Your task to perform on an android device: choose inbox layout in the gmail app Image 0: 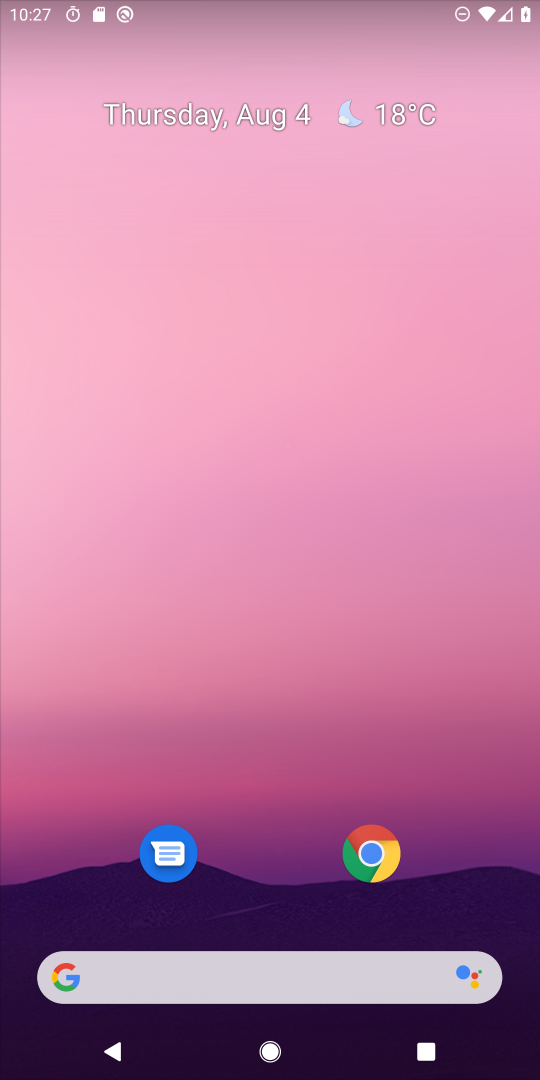
Step 0: drag from (254, 905) to (315, 0)
Your task to perform on an android device: choose inbox layout in the gmail app Image 1: 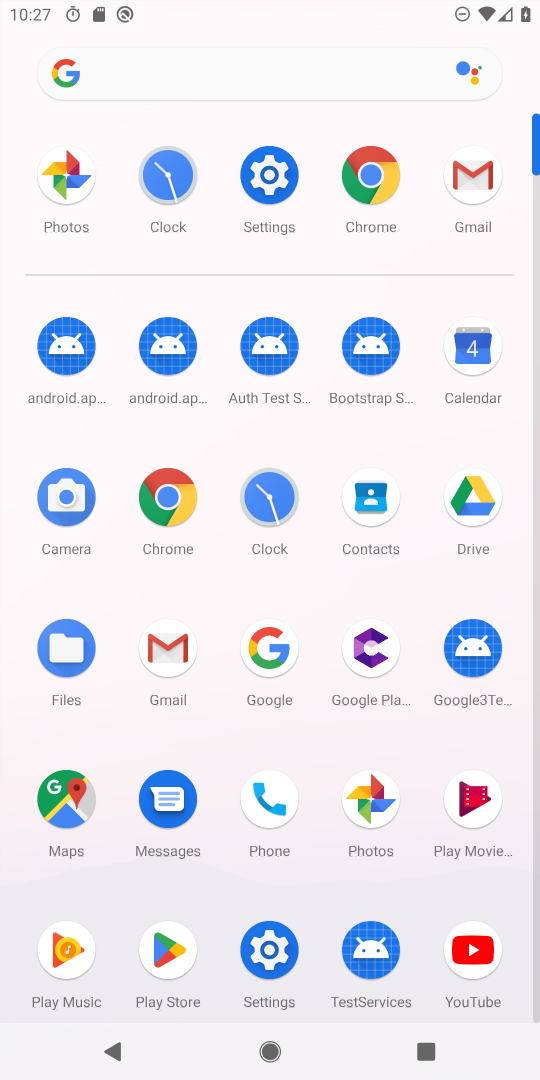
Step 1: click (173, 662)
Your task to perform on an android device: choose inbox layout in the gmail app Image 2: 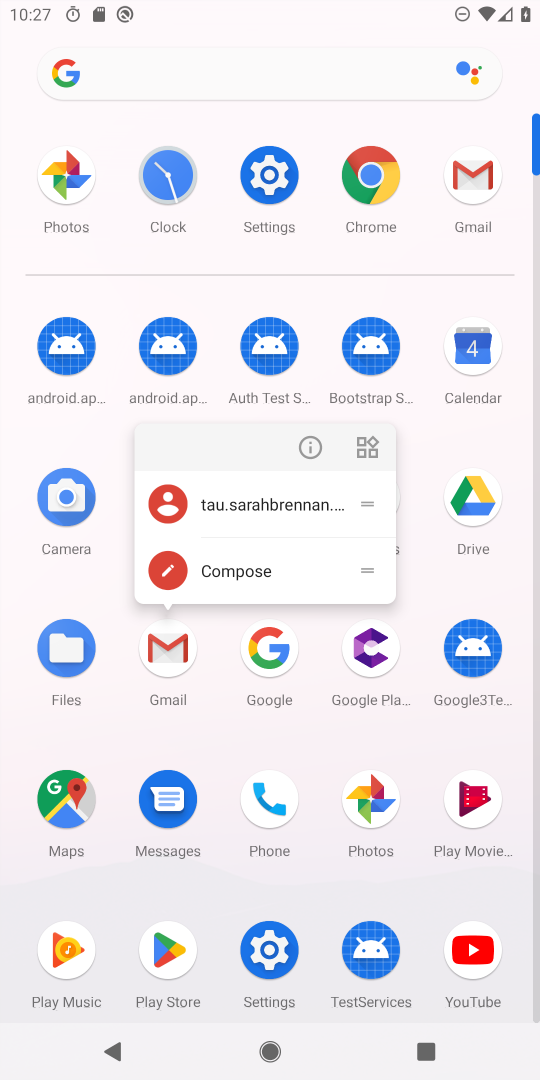
Step 2: click (181, 685)
Your task to perform on an android device: choose inbox layout in the gmail app Image 3: 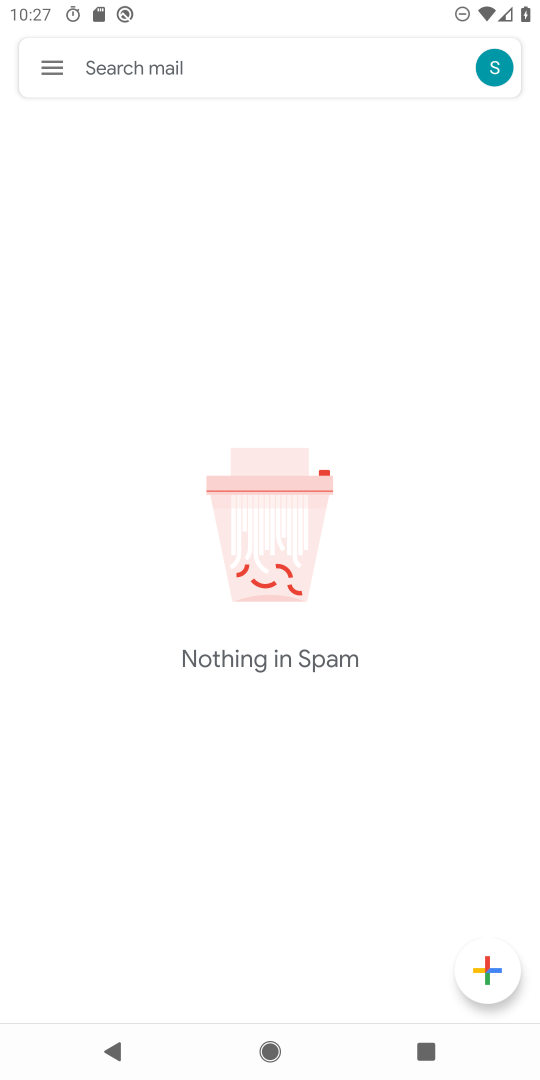
Step 3: click (54, 68)
Your task to perform on an android device: choose inbox layout in the gmail app Image 4: 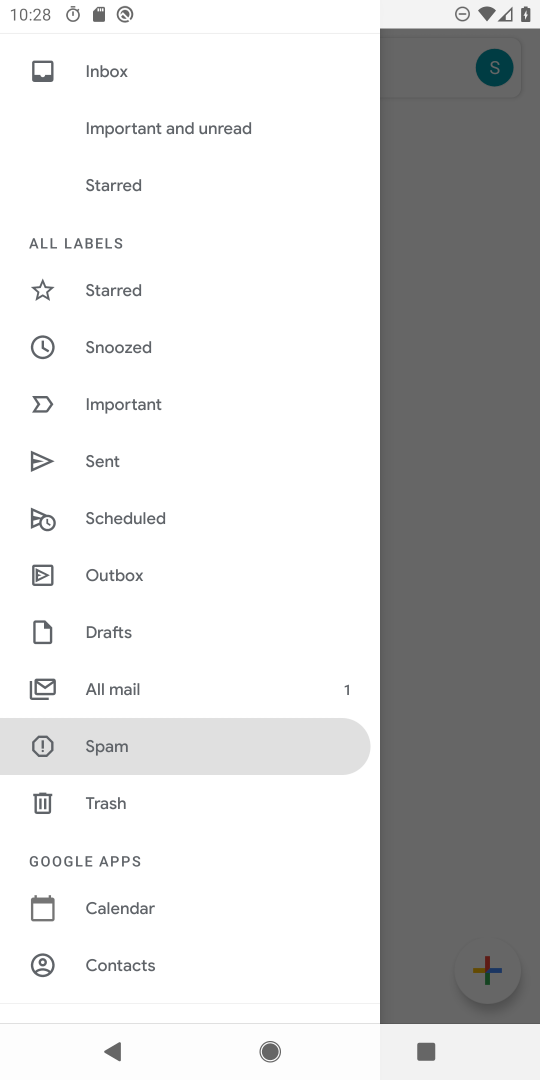
Step 4: drag from (123, 923) to (141, 323)
Your task to perform on an android device: choose inbox layout in the gmail app Image 5: 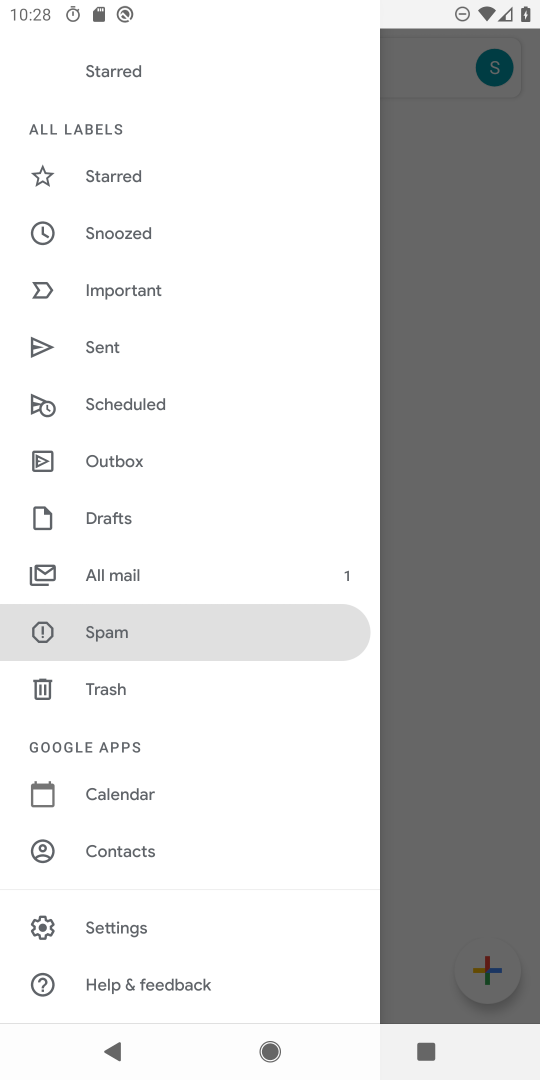
Step 5: click (121, 931)
Your task to perform on an android device: choose inbox layout in the gmail app Image 6: 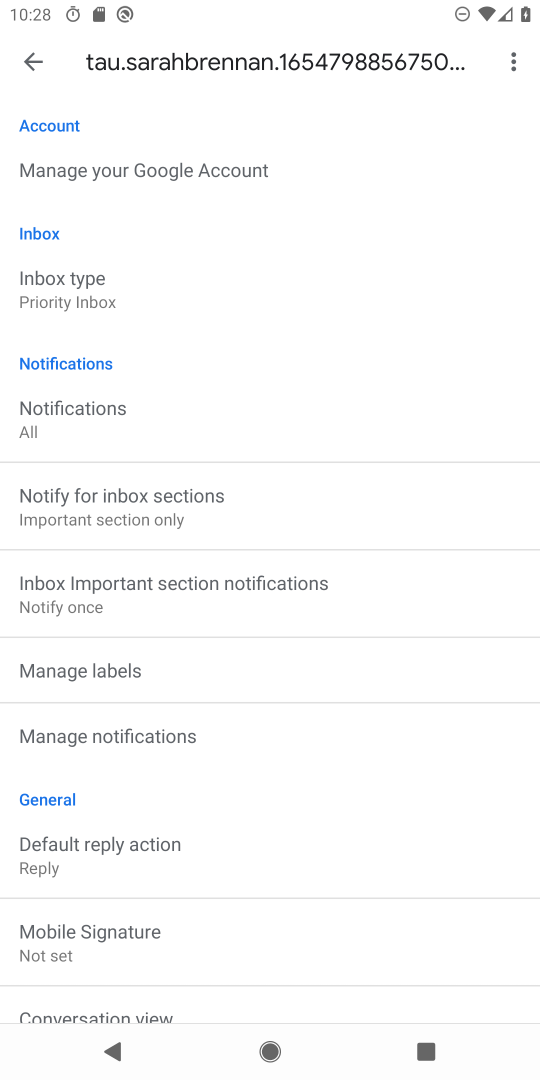
Step 6: click (101, 287)
Your task to perform on an android device: choose inbox layout in the gmail app Image 7: 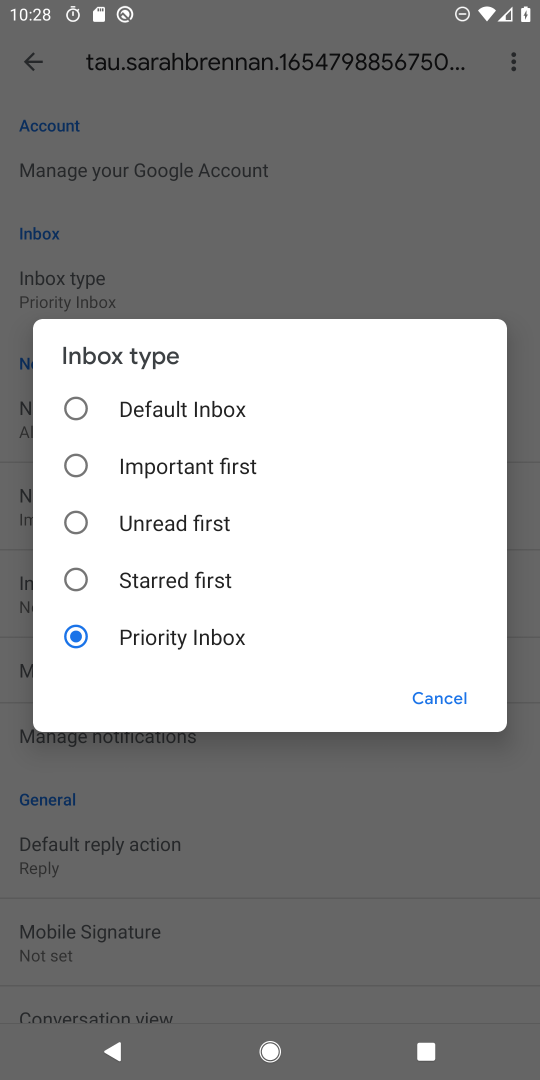
Step 7: click (163, 406)
Your task to perform on an android device: choose inbox layout in the gmail app Image 8: 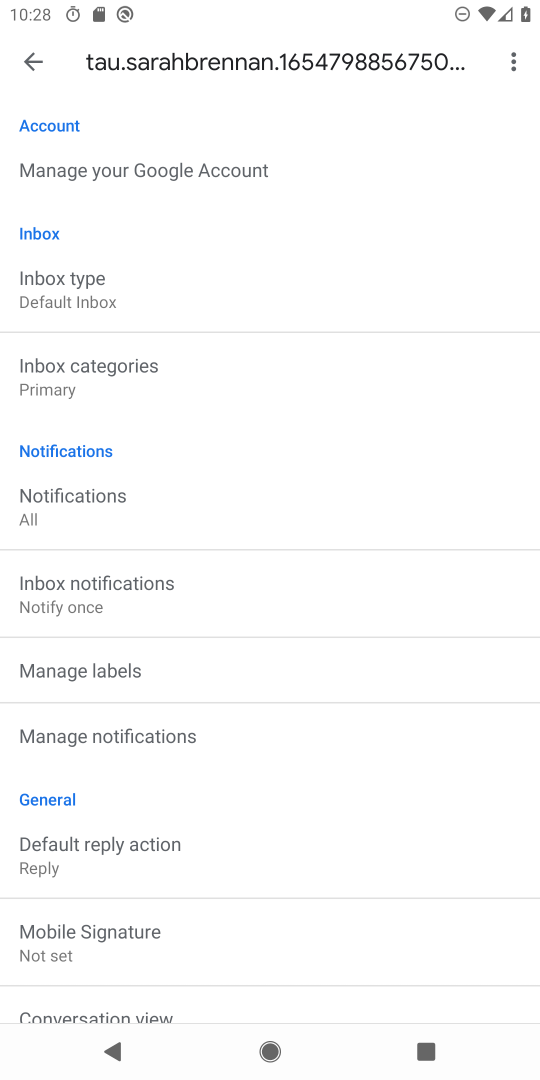
Step 8: task complete